Your task to perform on an android device: Add sony triple a to the cart on ebay.com, then select checkout. Image 0: 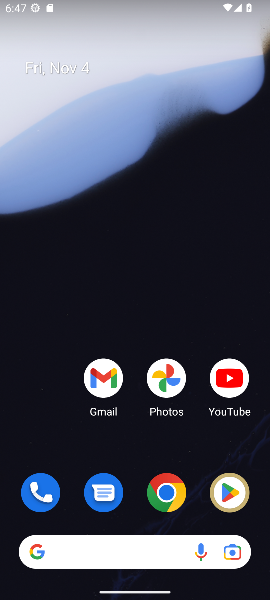
Step 0: drag from (140, 444) to (212, 72)
Your task to perform on an android device: Add sony triple a to the cart on ebay.com, then select checkout. Image 1: 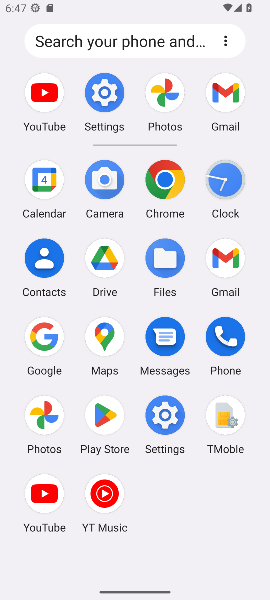
Step 1: click (170, 181)
Your task to perform on an android device: Add sony triple a to the cart on ebay.com, then select checkout. Image 2: 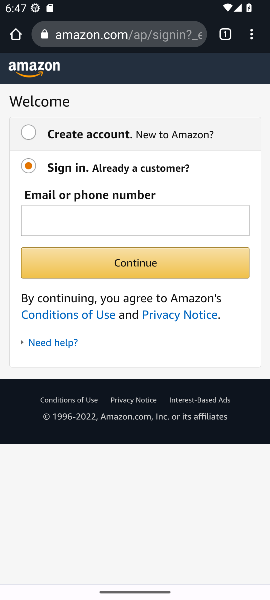
Step 2: click (142, 31)
Your task to perform on an android device: Add sony triple a to the cart on ebay.com, then select checkout. Image 3: 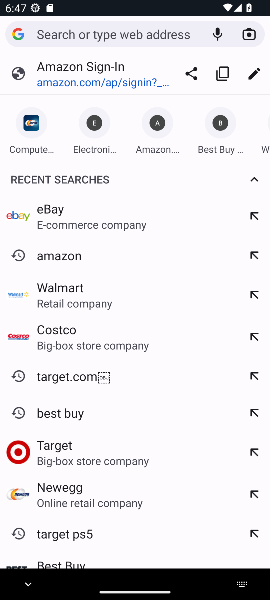
Step 3: type "ebay.com"
Your task to perform on an android device: Add sony triple a to the cart on ebay.com, then select checkout. Image 4: 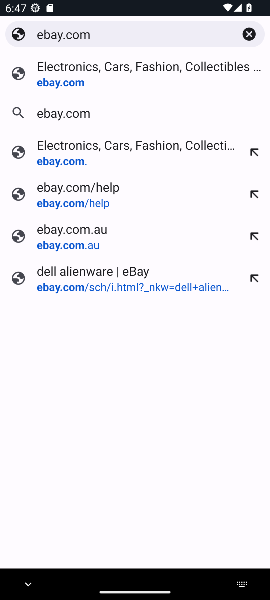
Step 4: press enter
Your task to perform on an android device: Add sony triple a to the cart on ebay.com, then select checkout. Image 5: 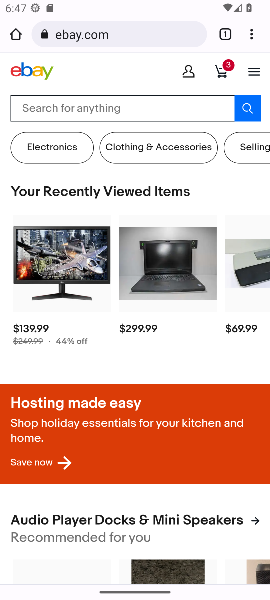
Step 5: click (160, 109)
Your task to perform on an android device: Add sony triple a to the cart on ebay.com, then select checkout. Image 6: 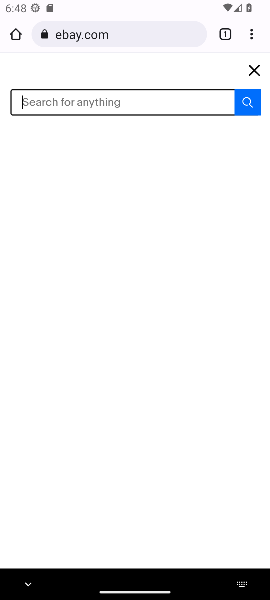
Step 6: type "sony triple a"
Your task to perform on an android device: Add sony triple a to the cart on ebay.com, then select checkout. Image 7: 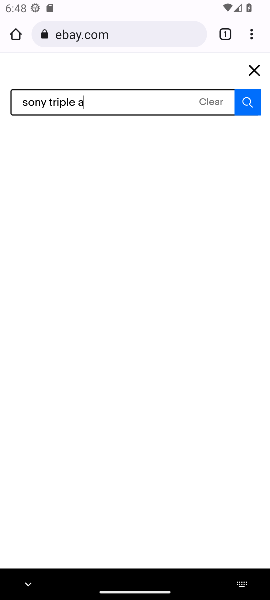
Step 7: press enter
Your task to perform on an android device: Add sony triple a to the cart on ebay.com, then select checkout. Image 8: 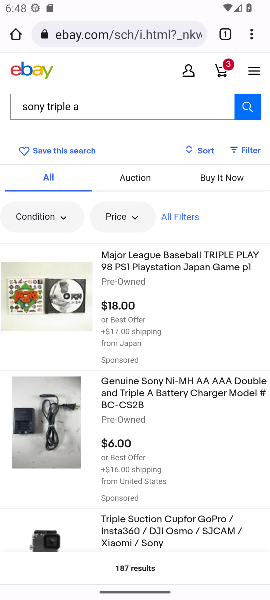
Step 8: click (223, 70)
Your task to perform on an android device: Add sony triple a to the cart on ebay.com, then select checkout. Image 9: 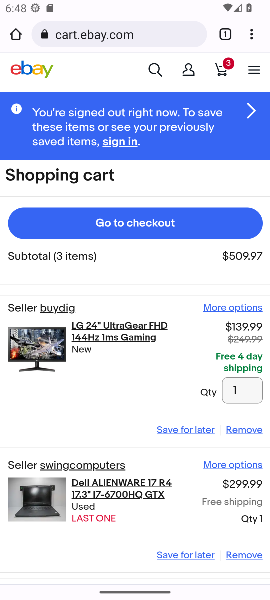
Step 9: click (167, 228)
Your task to perform on an android device: Add sony triple a to the cart on ebay.com, then select checkout. Image 10: 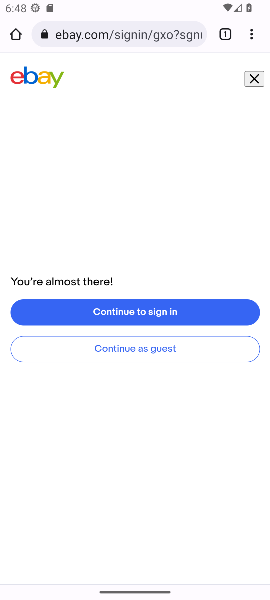
Step 10: task complete